Your task to perform on an android device: Do I have any events this weekend? Image 0: 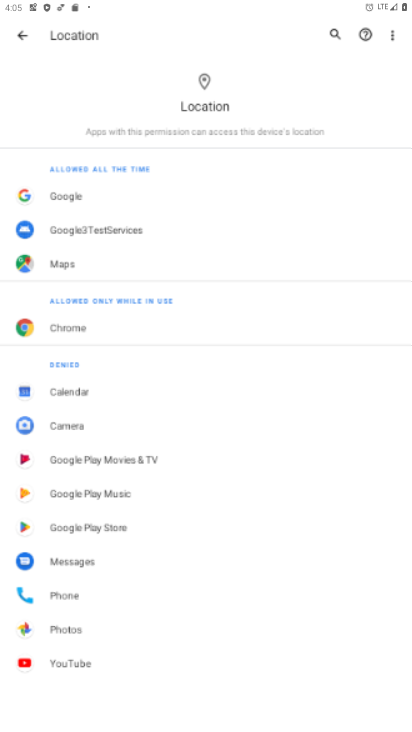
Step 0: press home button
Your task to perform on an android device: Do I have any events this weekend? Image 1: 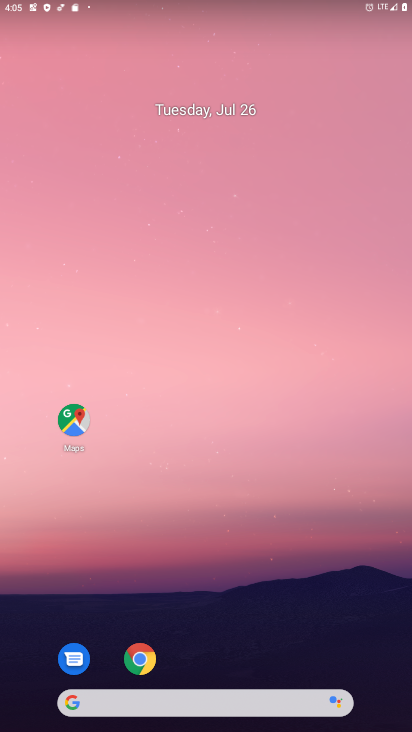
Step 1: drag from (246, 672) to (255, 164)
Your task to perform on an android device: Do I have any events this weekend? Image 2: 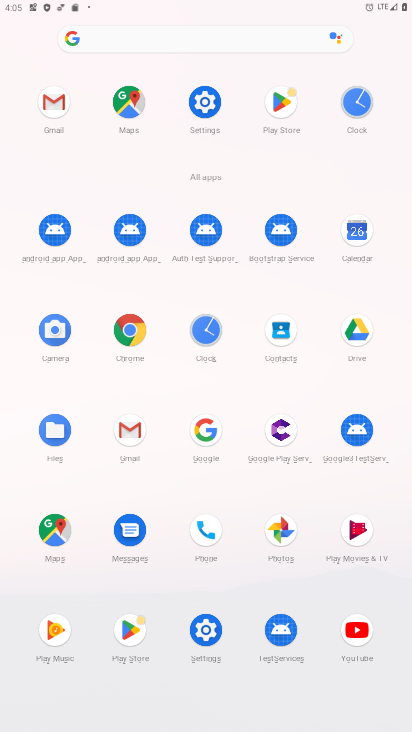
Step 2: click (358, 239)
Your task to perform on an android device: Do I have any events this weekend? Image 3: 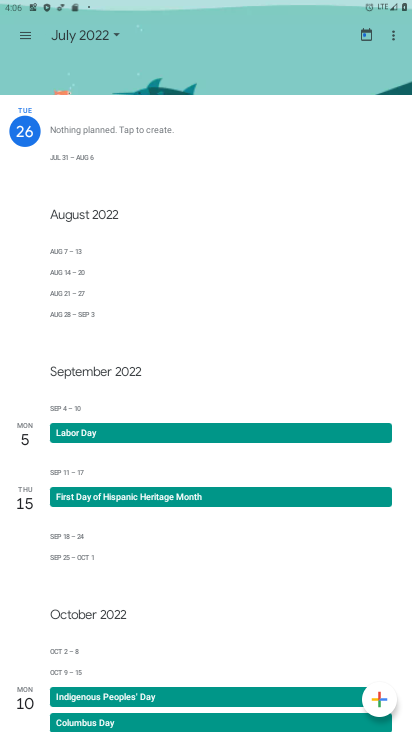
Step 3: click (29, 22)
Your task to perform on an android device: Do I have any events this weekend? Image 4: 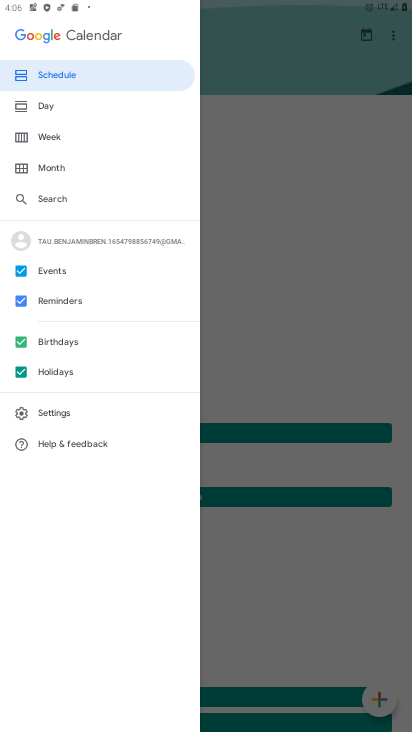
Step 4: click (54, 142)
Your task to perform on an android device: Do I have any events this weekend? Image 5: 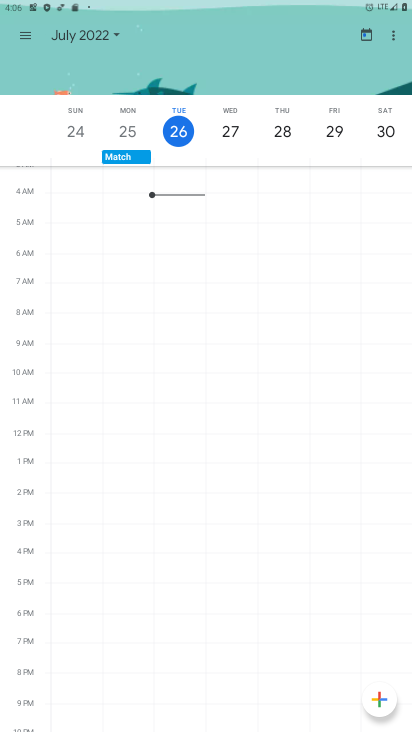
Step 5: task complete